Your task to perform on an android device: Open Yahoo.com Image 0: 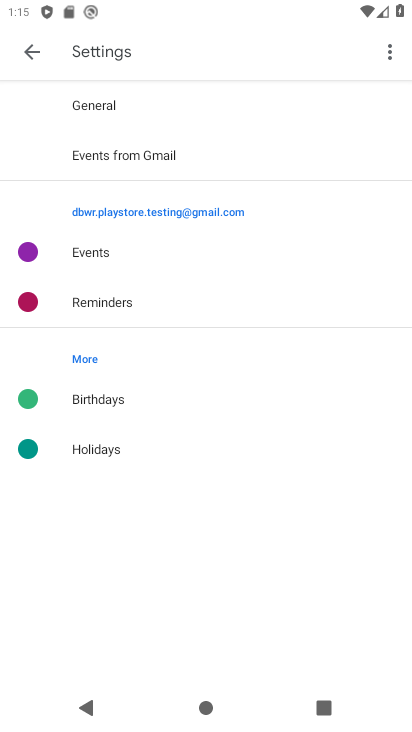
Step 0: press home button
Your task to perform on an android device: Open Yahoo.com Image 1: 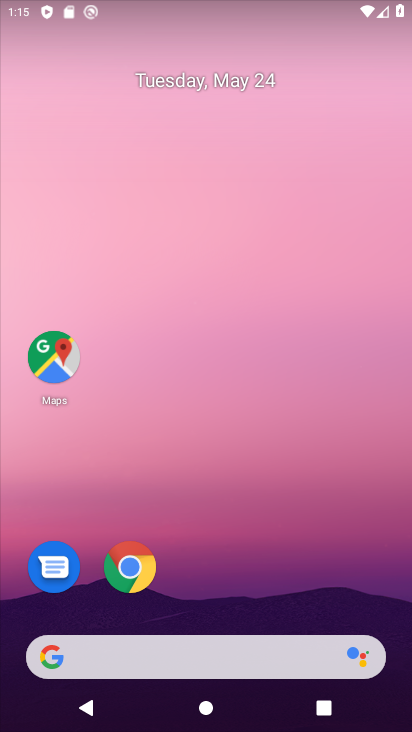
Step 1: click (139, 561)
Your task to perform on an android device: Open Yahoo.com Image 2: 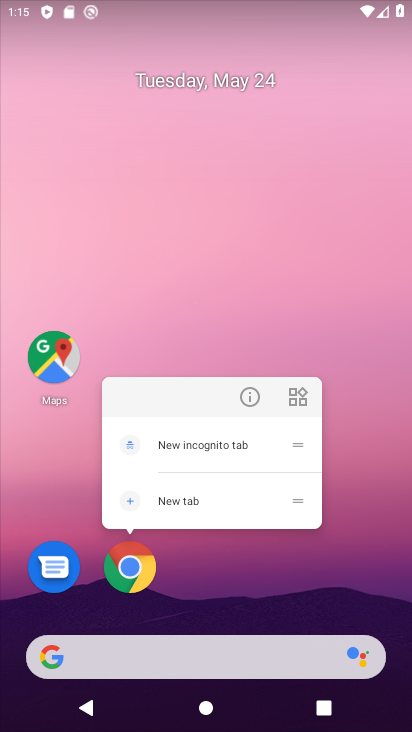
Step 2: click (128, 573)
Your task to perform on an android device: Open Yahoo.com Image 3: 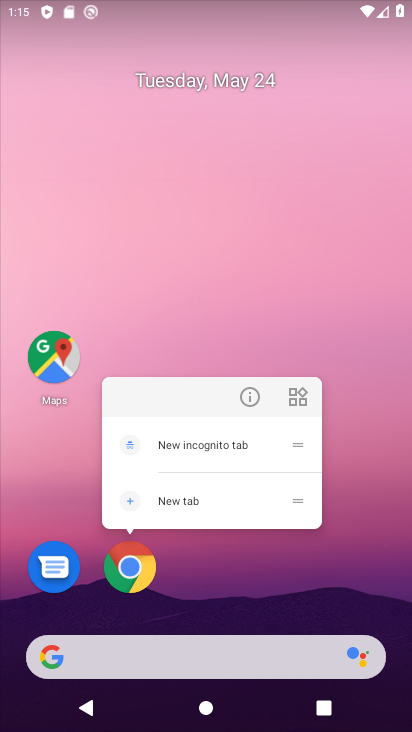
Step 3: click (128, 573)
Your task to perform on an android device: Open Yahoo.com Image 4: 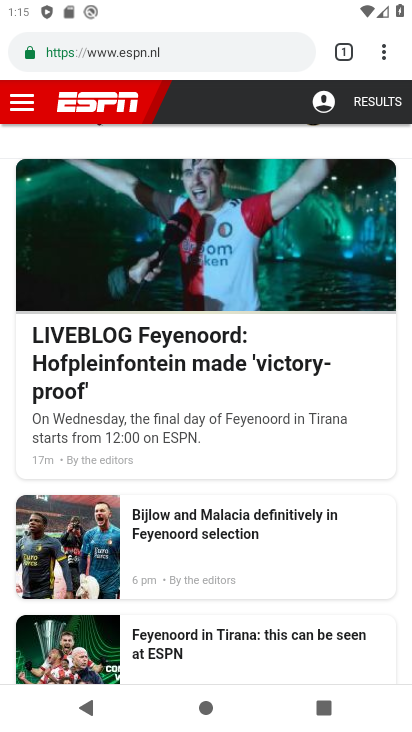
Step 4: drag from (387, 58) to (339, 122)
Your task to perform on an android device: Open Yahoo.com Image 5: 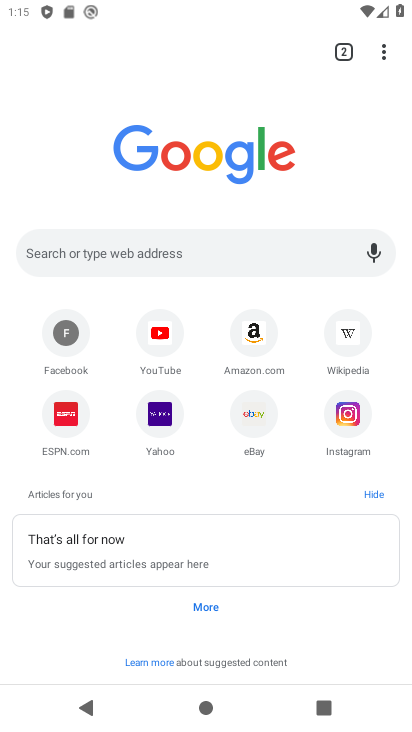
Step 5: click (165, 416)
Your task to perform on an android device: Open Yahoo.com Image 6: 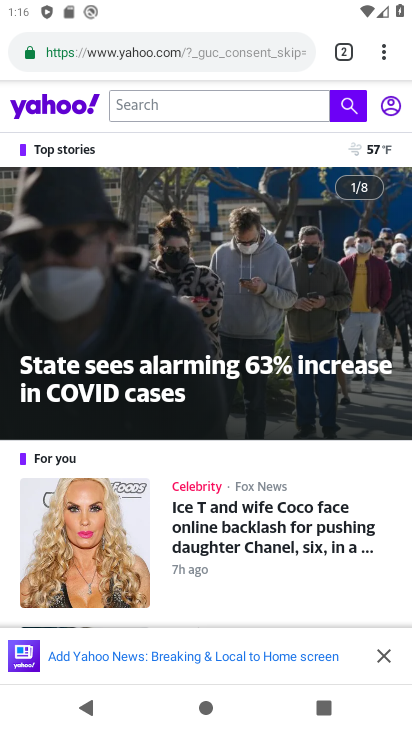
Step 6: task complete